Your task to perform on an android device: turn on bluetooth scan Image 0: 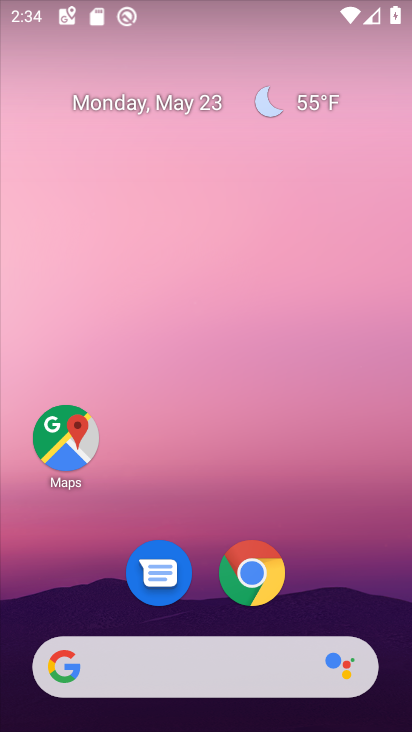
Step 0: drag from (340, 563) to (262, 57)
Your task to perform on an android device: turn on bluetooth scan Image 1: 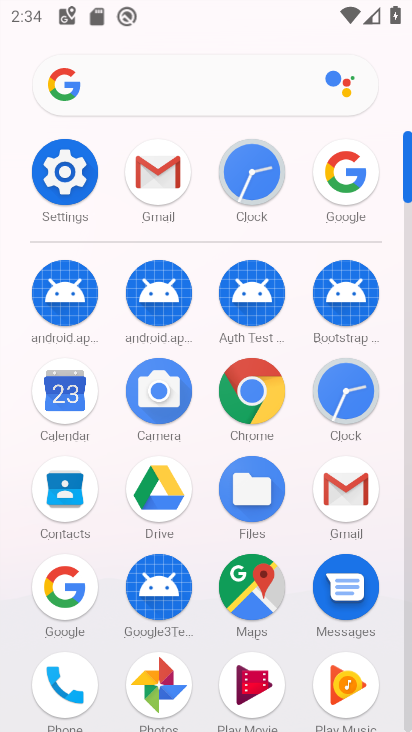
Step 1: click (55, 178)
Your task to perform on an android device: turn on bluetooth scan Image 2: 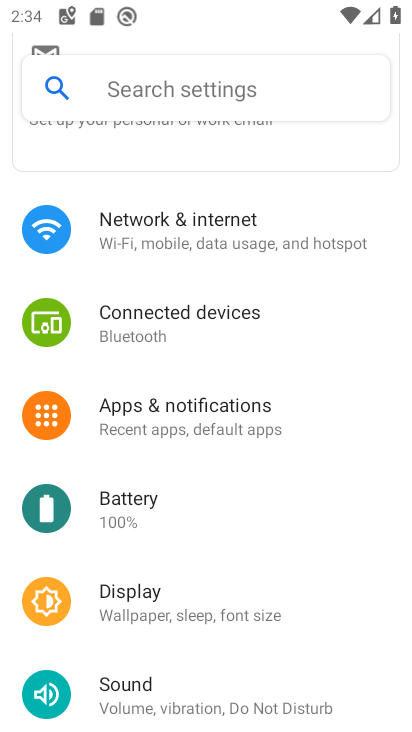
Step 2: drag from (324, 649) to (267, 155)
Your task to perform on an android device: turn on bluetooth scan Image 3: 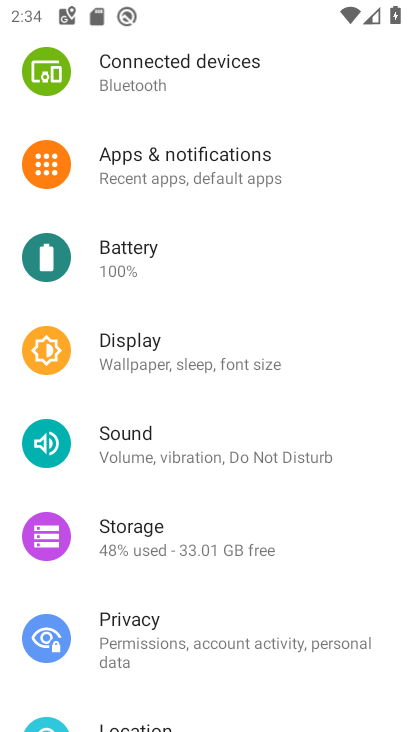
Step 3: drag from (256, 694) to (267, 301)
Your task to perform on an android device: turn on bluetooth scan Image 4: 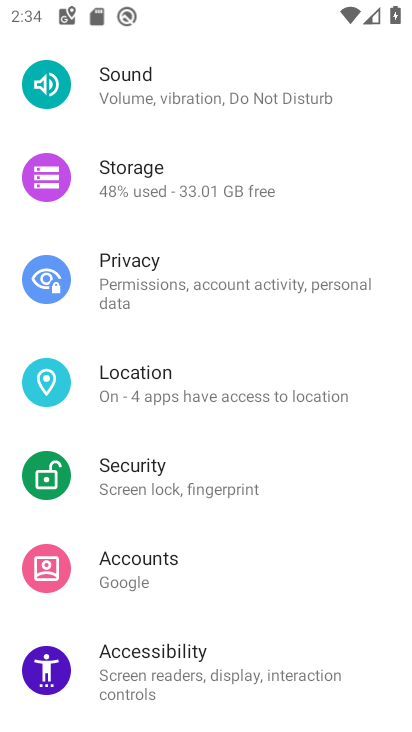
Step 4: click (188, 381)
Your task to perform on an android device: turn on bluetooth scan Image 5: 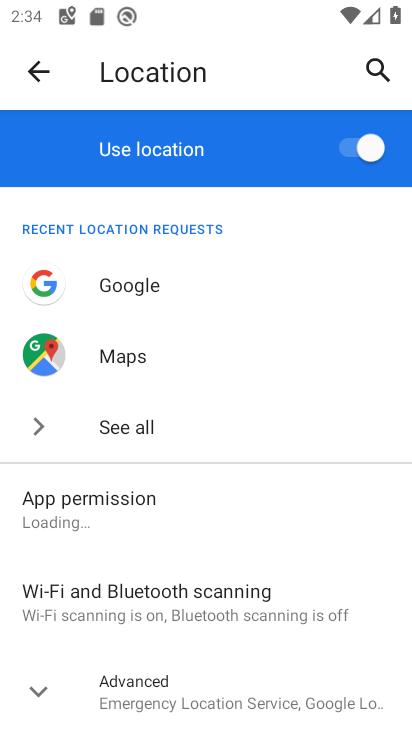
Step 5: click (205, 596)
Your task to perform on an android device: turn on bluetooth scan Image 6: 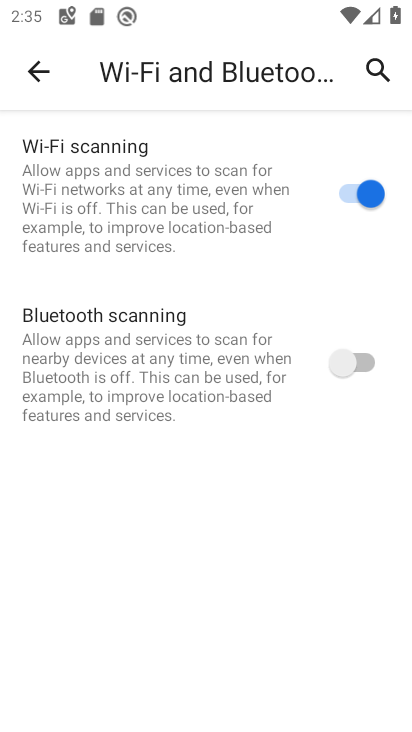
Step 6: click (362, 361)
Your task to perform on an android device: turn on bluetooth scan Image 7: 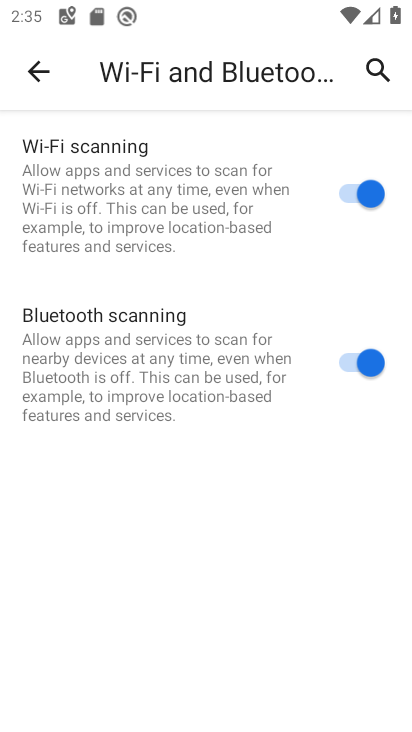
Step 7: task complete